Your task to perform on an android device: add a label to a message in the gmail app Image 0: 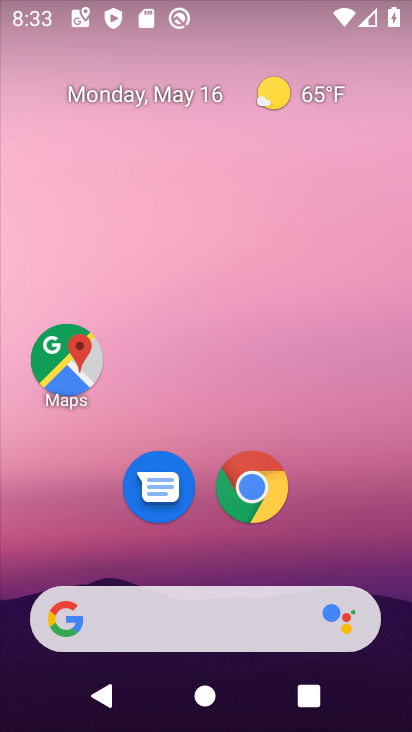
Step 0: drag from (356, 523) to (377, 172)
Your task to perform on an android device: add a label to a message in the gmail app Image 1: 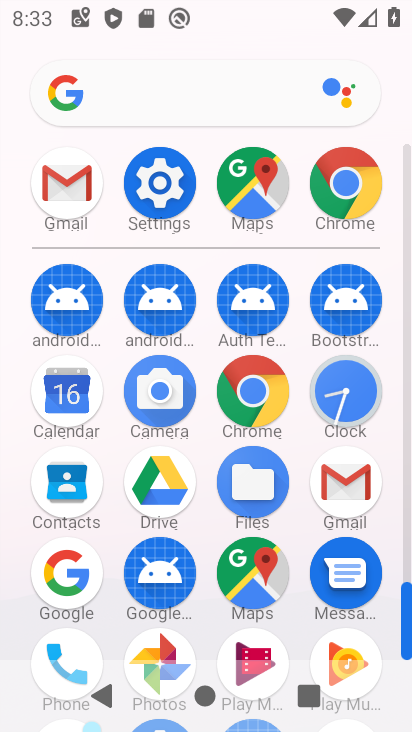
Step 1: click (338, 485)
Your task to perform on an android device: add a label to a message in the gmail app Image 2: 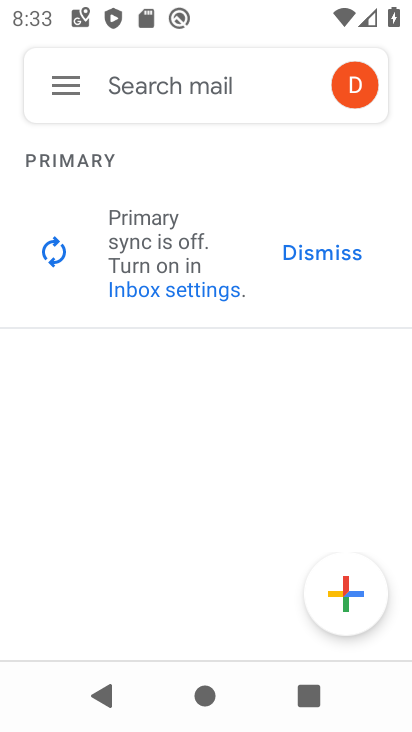
Step 2: click (73, 87)
Your task to perform on an android device: add a label to a message in the gmail app Image 3: 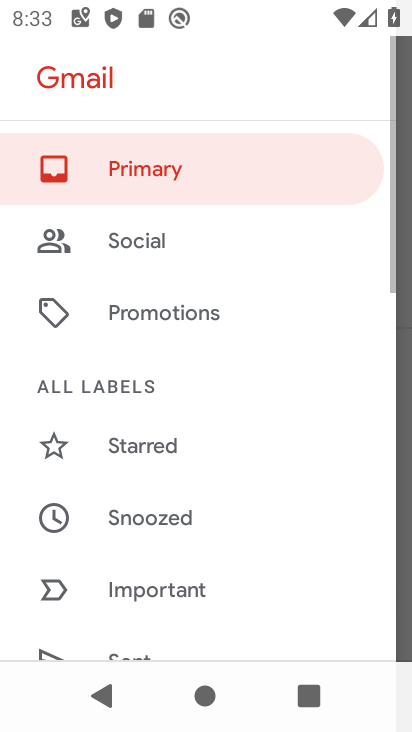
Step 3: drag from (295, 567) to (318, 370)
Your task to perform on an android device: add a label to a message in the gmail app Image 4: 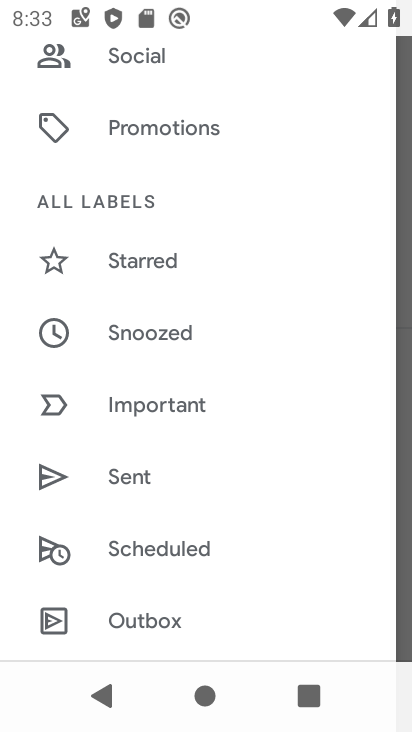
Step 4: drag from (311, 562) to (311, 370)
Your task to perform on an android device: add a label to a message in the gmail app Image 5: 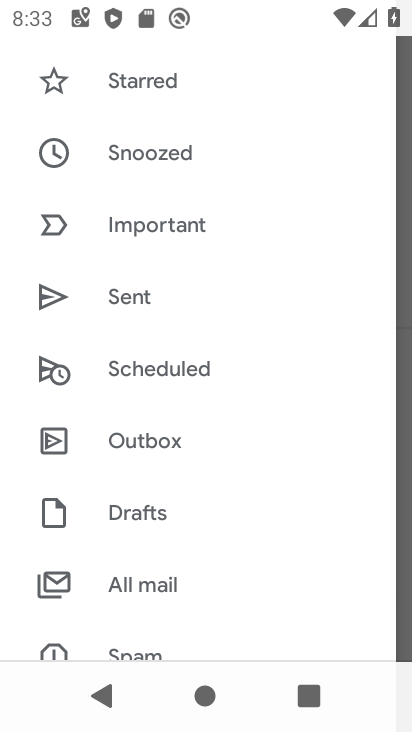
Step 5: drag from (292, 560) to (303, 350)
Your task to perform on an android device: add a label to a message in the gmail app Image 6: 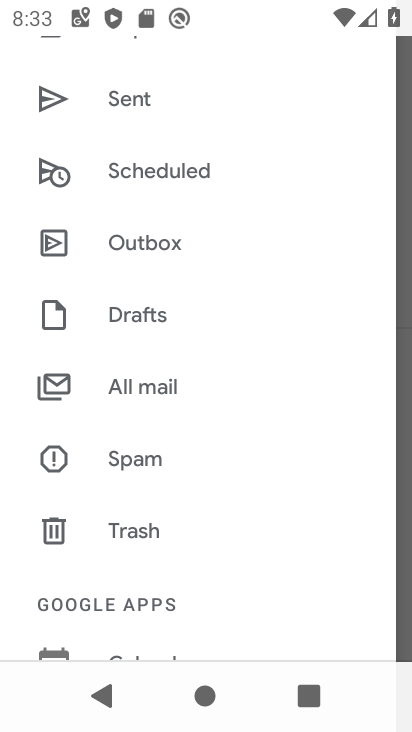
Step 6: drag from (296, 553) to (312, 338)
Your task to perform on an android device: add a label to a message in the gmail app Image 7: 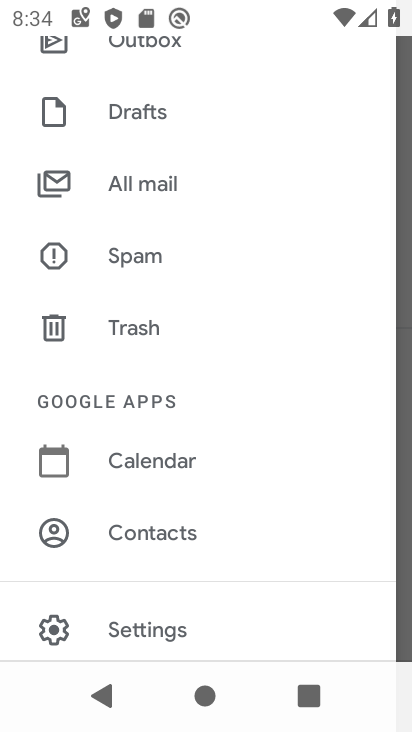
Step 7: drag from (286, 595) to (282, 317)
Your task to perform on an android device: add a label to a message in the gmail app Image 8: 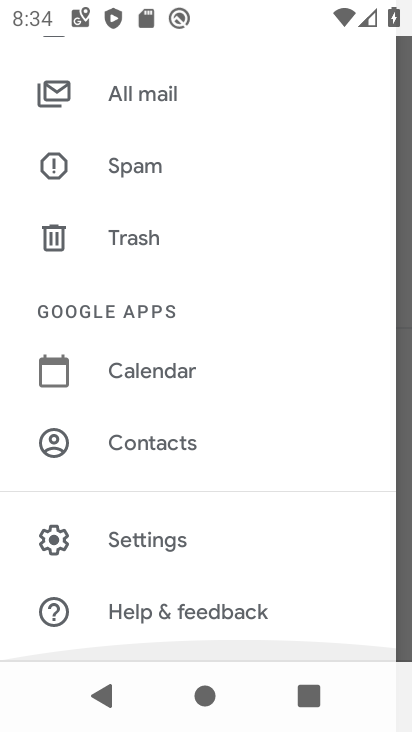
Step 8: drag from (293, 246) to (268, 528)
Your task to perform on an android device: add a label to a message in the gmail app Image 9: 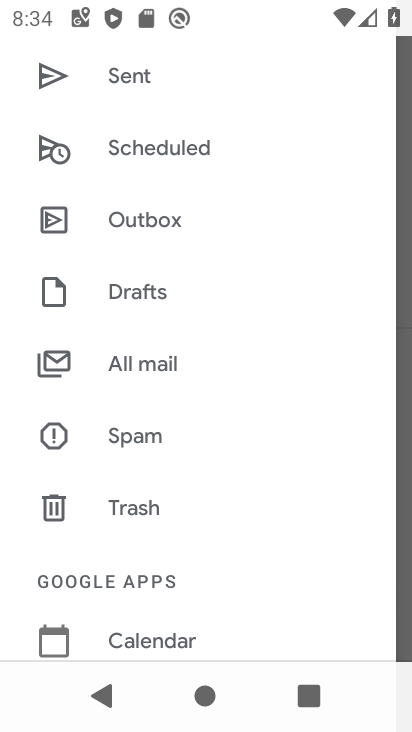
Step 9: drag from (251, 256) to (253, 448)
Your task to perform on an android device: add a label to a message in the gmail app Image 10: 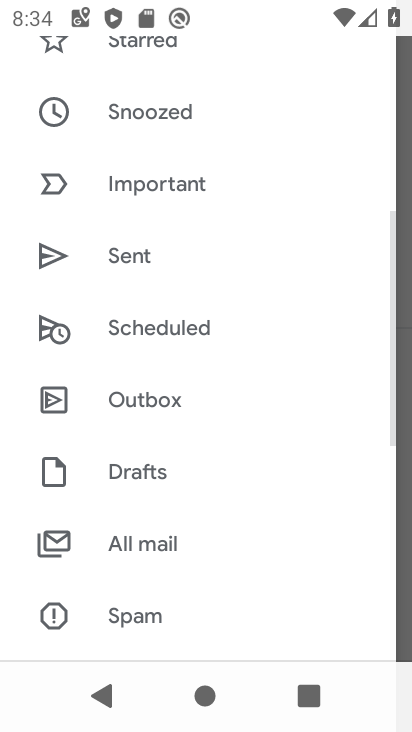
Step 10: drag from (275, 249) to (268, 421)
Your task to perform on an android device: add a label to a message in the gmail app Image 11: 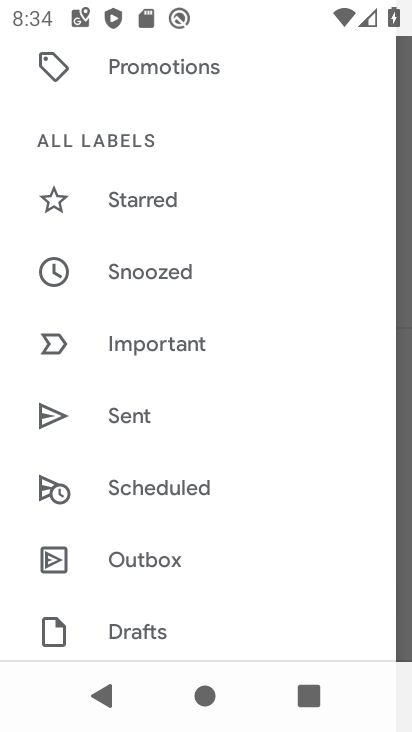
Step 11: drag from (284, 236) to (279, 430)
Your task to perform on an android device: add a label to a message in the gmail app Image 12: 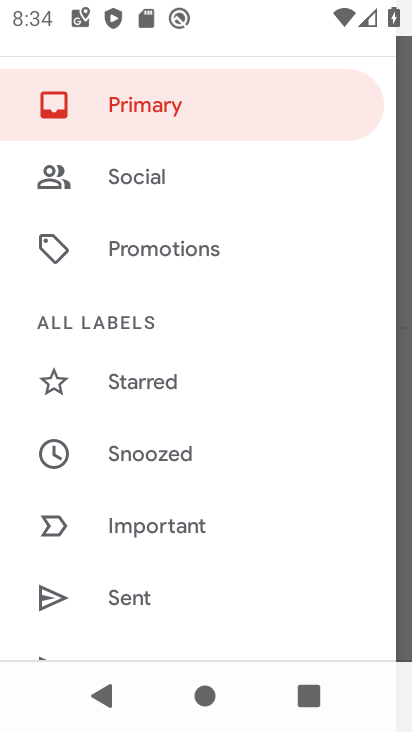
Step 12: click (232, 116)
Your task to perform on an android device: add a label to a message in the gmail app Image 13: 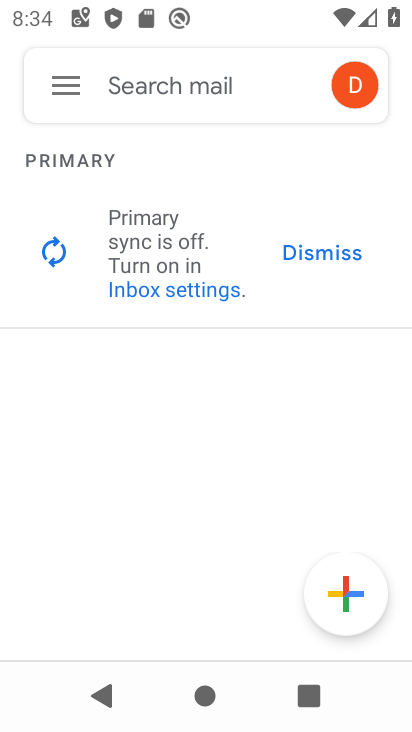
Step 13: task complete